Your task to perform on an android device: change notifications settings Image 0: 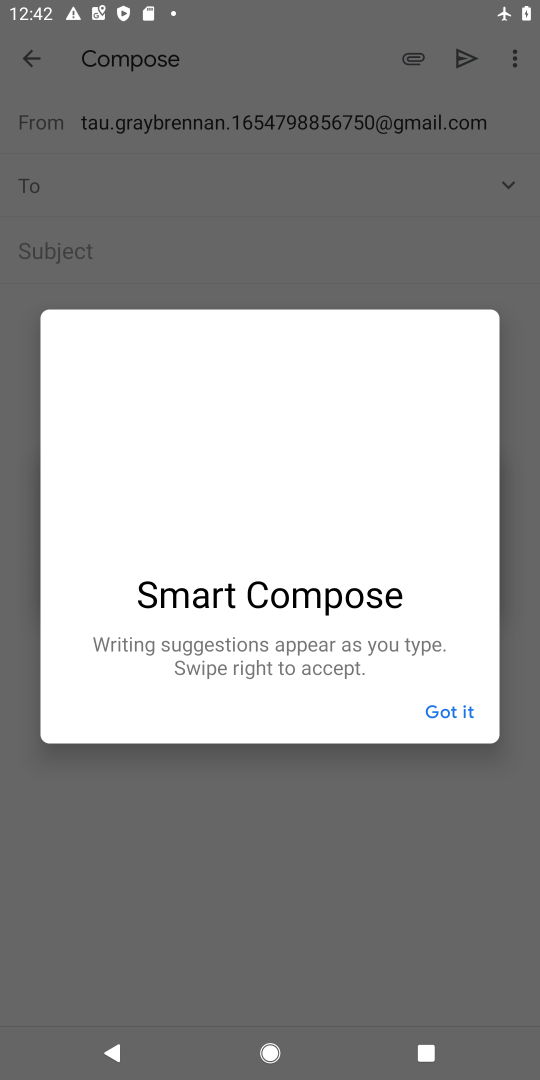
Step 0: press back button
Your task to perform on an android device: change notifications settings Image 1: 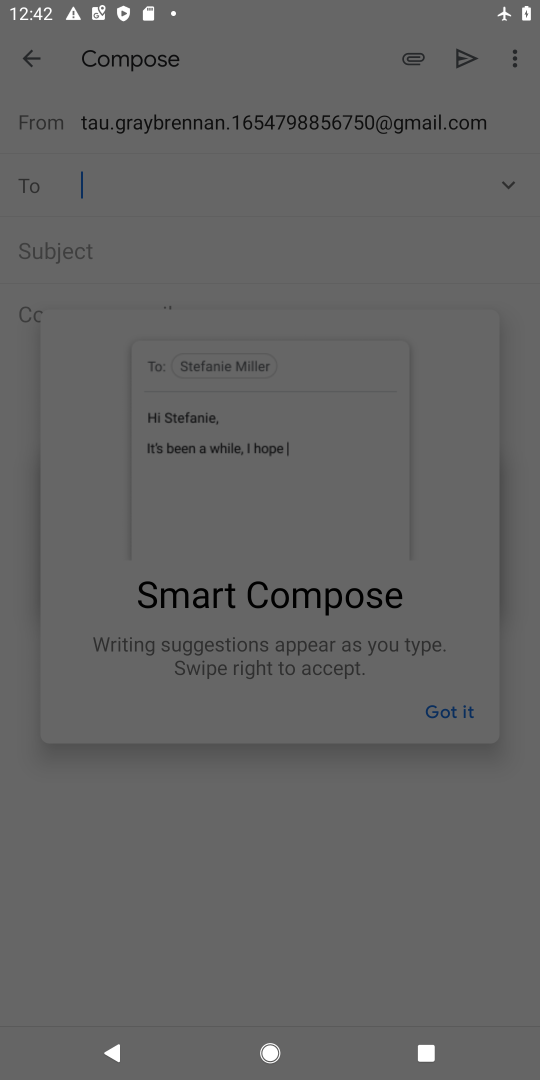
Step 1: press back button
Your task to perform on an android device: change notifications settings Image 2: 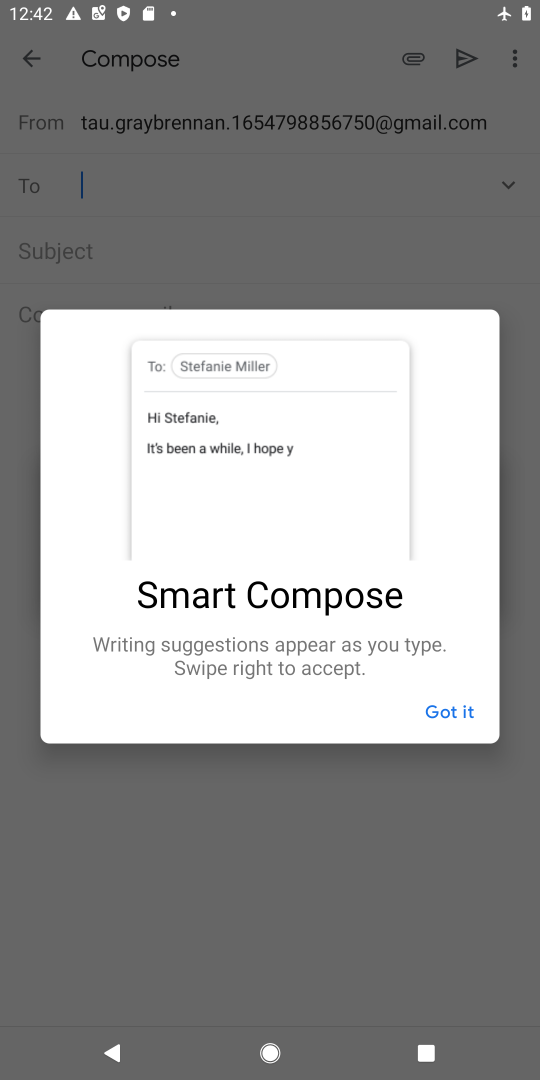
Step 2: press home button
Your task to perform on an android device: change notifications settings Image 3: 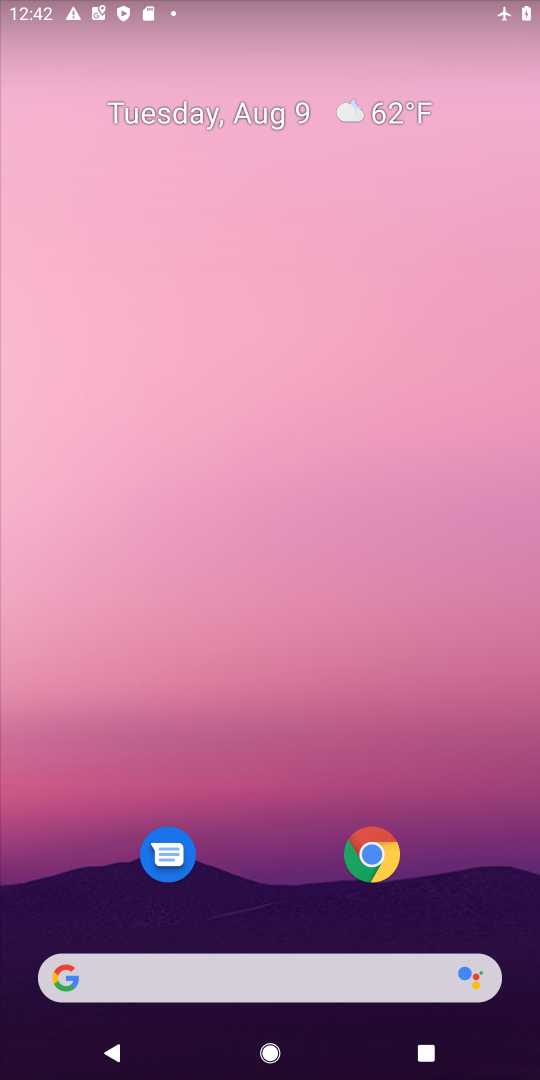
Step 3: drag from (275, 701) to (276, 133)
Your task to perform on an android device: change notifications settings Image 4: 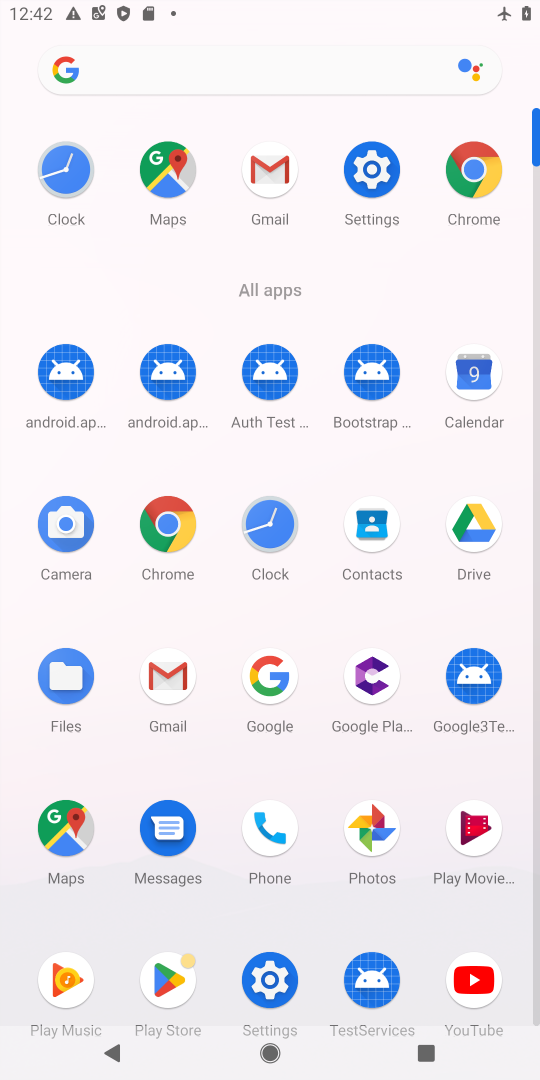
Step 4: click (374, 176)
Your task to perform on an android device: change notifications settings Image 5: 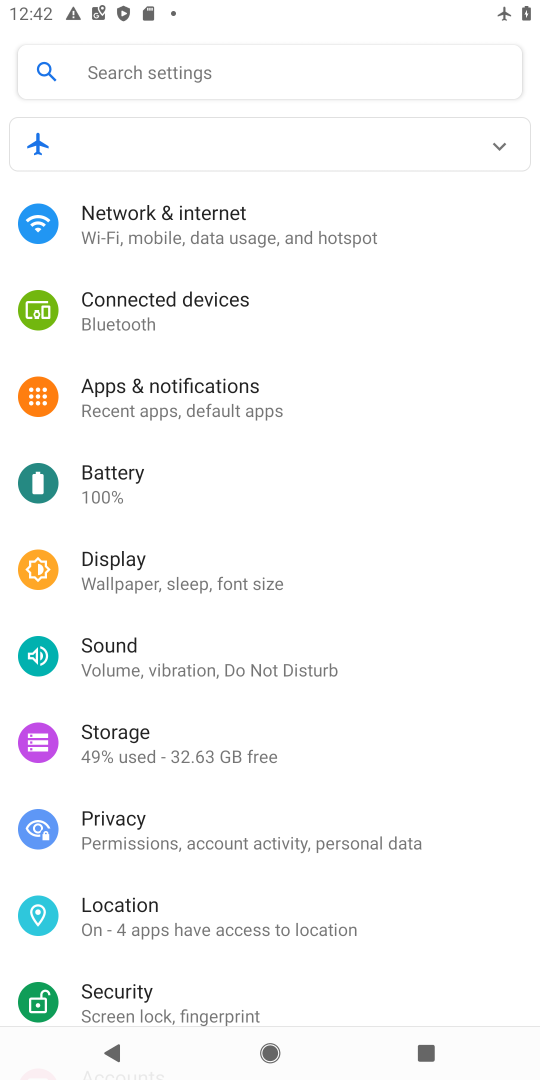
Step 5: click (207, 392)
Your task to perform on an android device: change notifications settings Image 6: 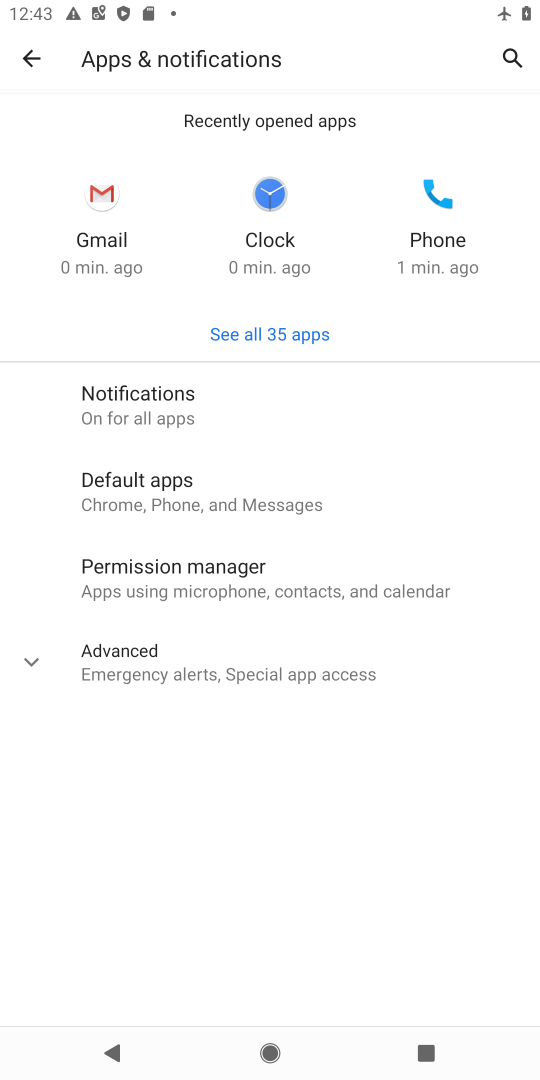
Step 6: click (207, 392)
Your task to perform on an android device: change notifications settings Image 7: 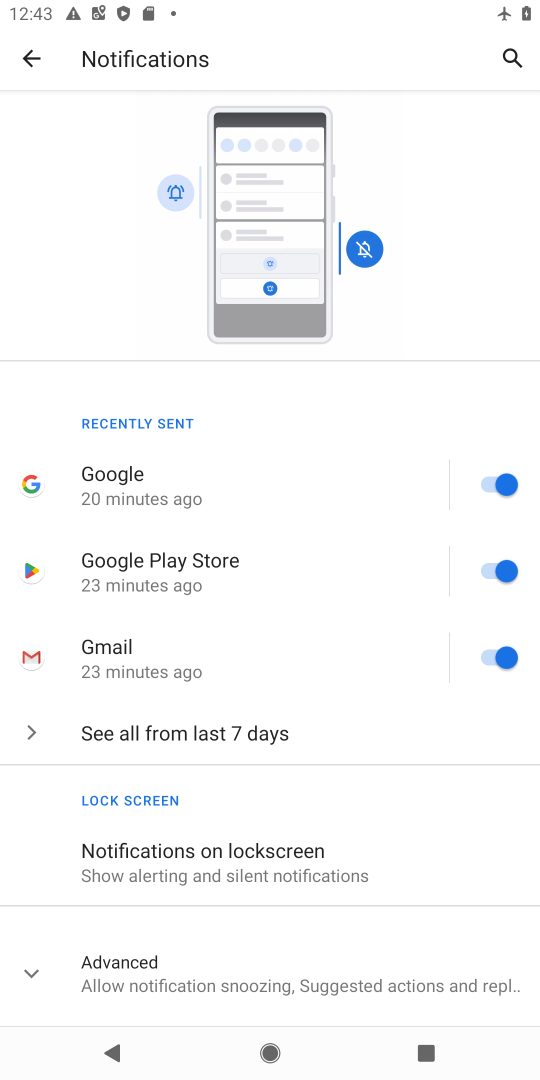
Step 7: drag from (292, 682) to (384, 331)
Your task to perform on an android device: change notifications settings Image 8: 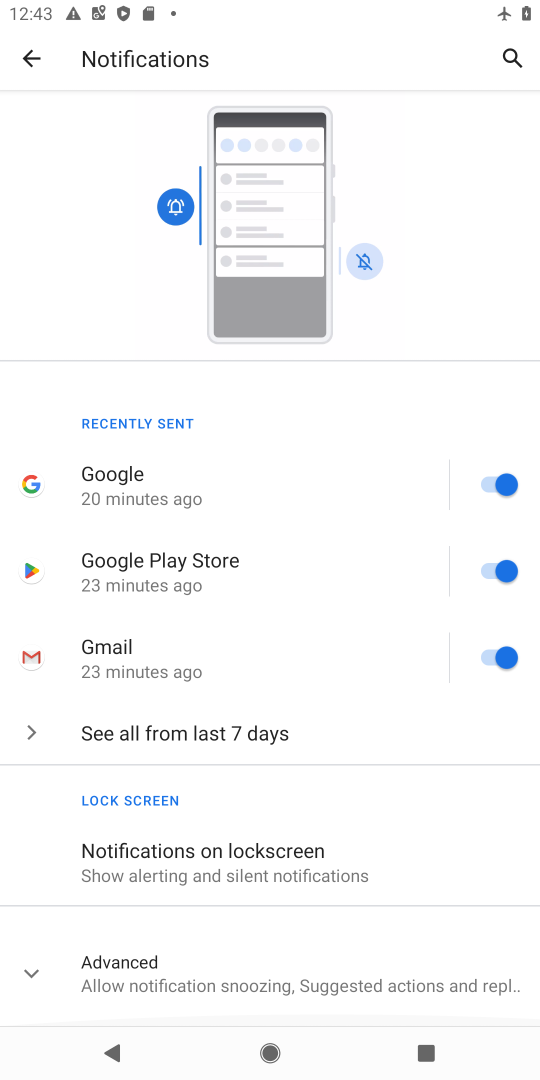
Step 8: click (231, 976)
Your task to perform on an android device: change notifications settings Image 9: 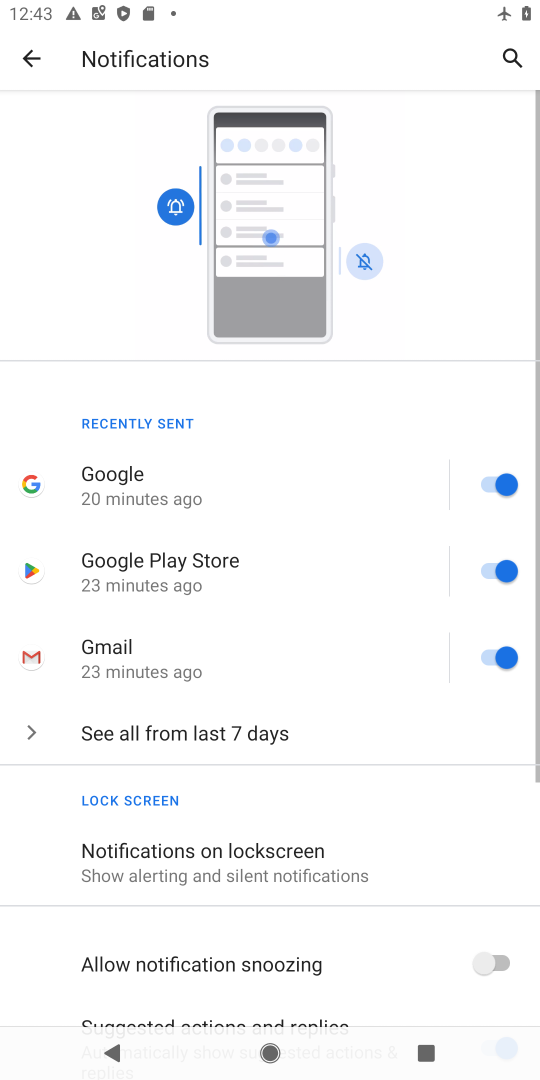
Step 9: drag from (264, 746) to (311, 446)
Your task to perform on an android device: change notifications settings Image 10: 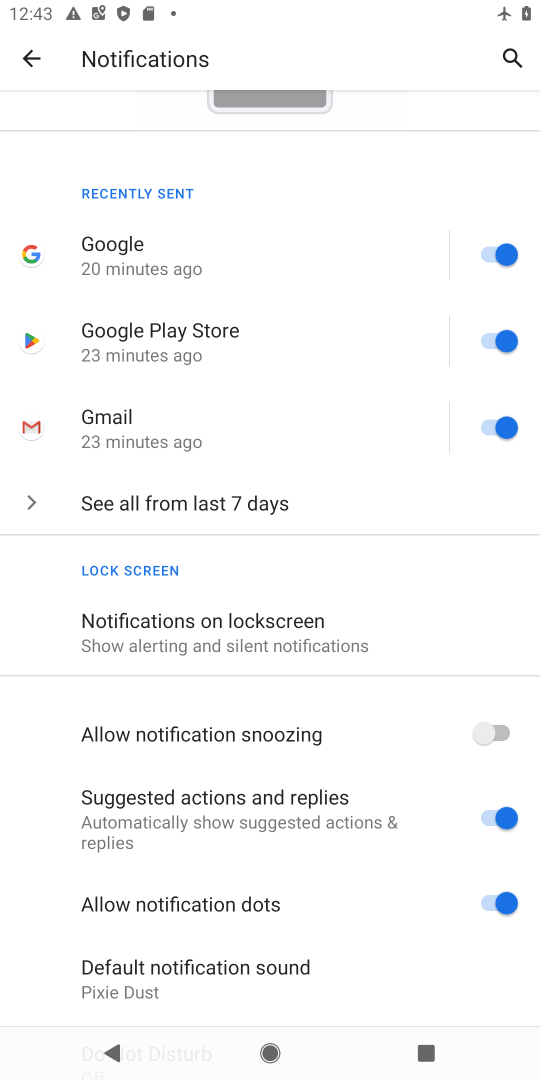
Step 10: click (488, 729)
Your task to perform on an android device: change notifications settings Image 11: 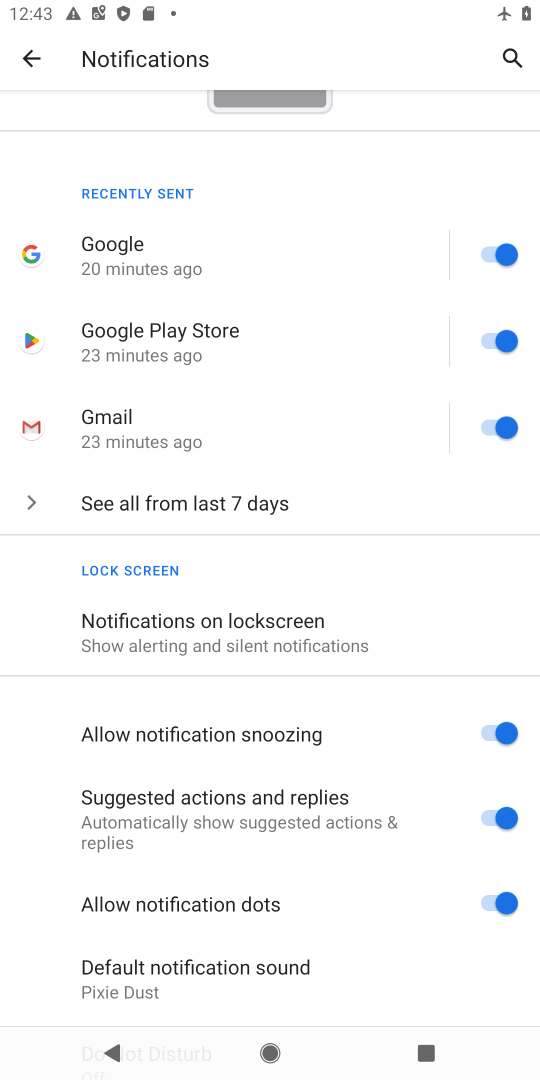
Step 11: task complete